Your task to perform on an android device: allow cookies in the chrome app Image 0: 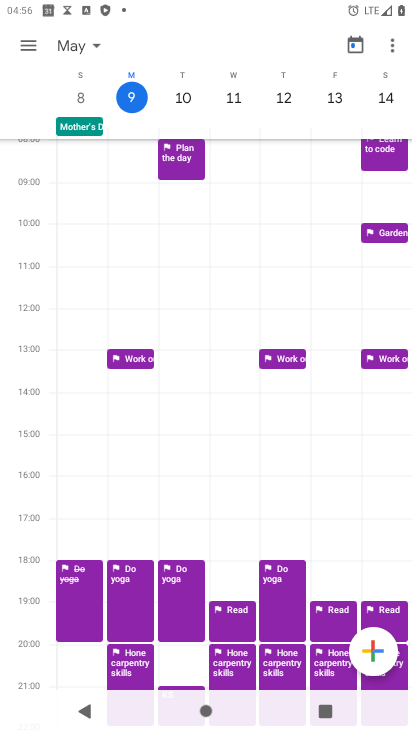
Step 0: press home button
Your task to perform on an android device: allow cookies in the chrome app Image 1: 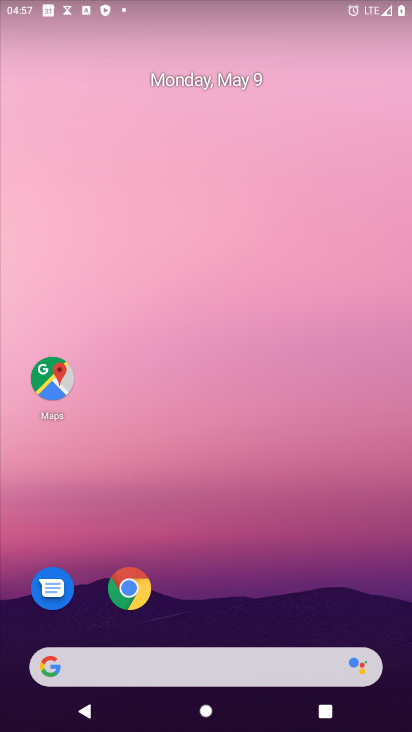
Step 1: drag from (239, 576) to (242, 146)
Your task to perform on an android device: allow cookies in the chrome app Image 2: 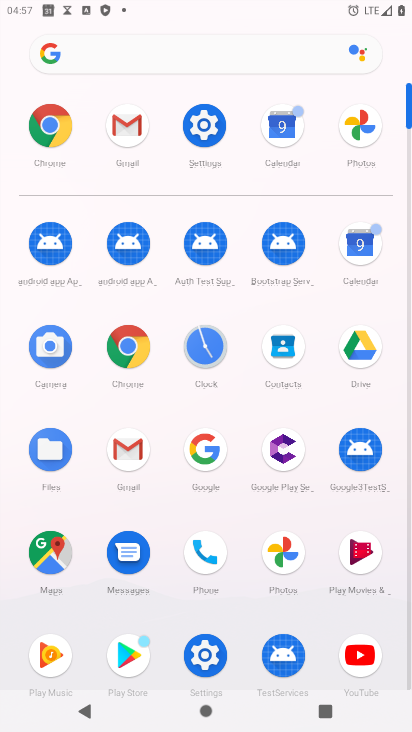
Step 2: click (48, 115)
Your task to perform on an android device: allow cookies in the chrome app Image 3: 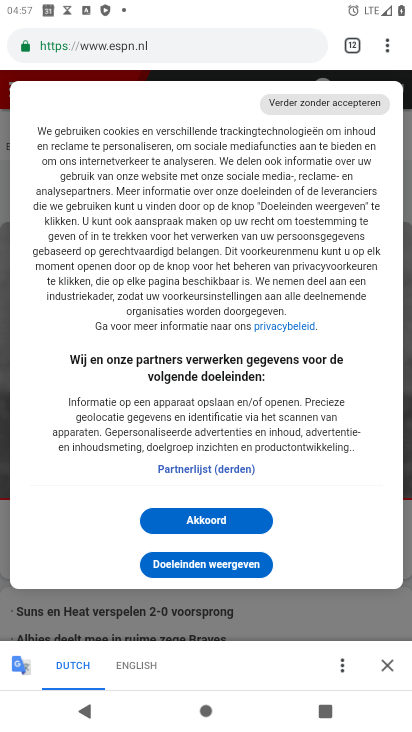
Step 3: press home button
Your task to perform on an android device: allow cookies in the chrome app Image 4: 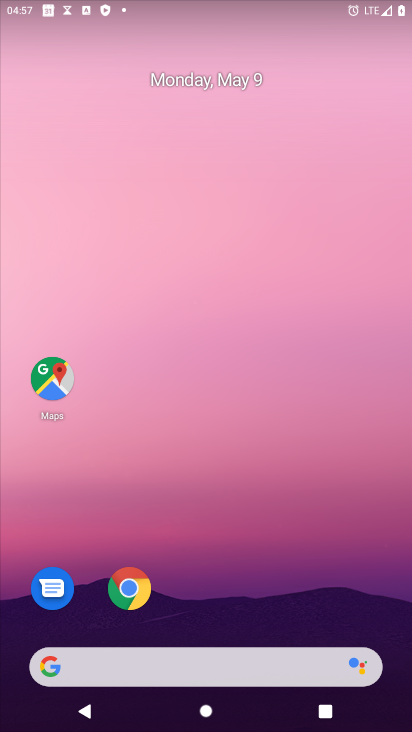
Step 4: click (120, 596)
Your task to perform on an android device: allow cookies in the chrome app Image 5: 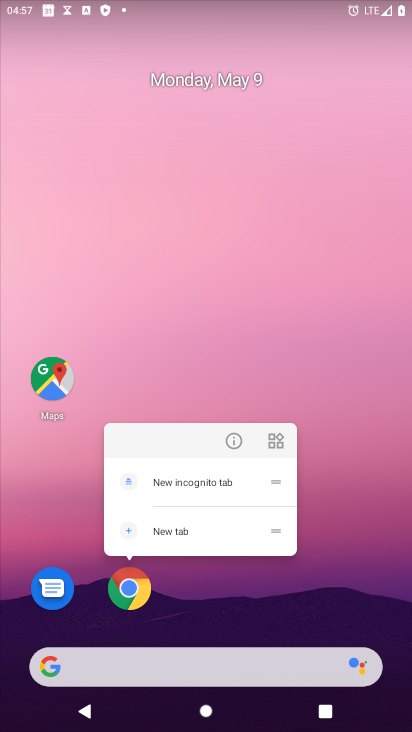
Step 5: click (120, 593)
Your task to perform on an android device: allow cookies in the chrome app Image 6: 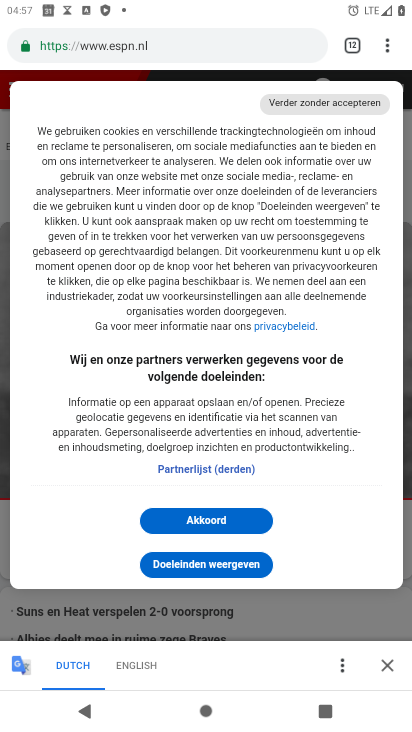
Step 6: click (380, 37)
Your task to perform on an android device: allow cookies in the chrome app Image 7: 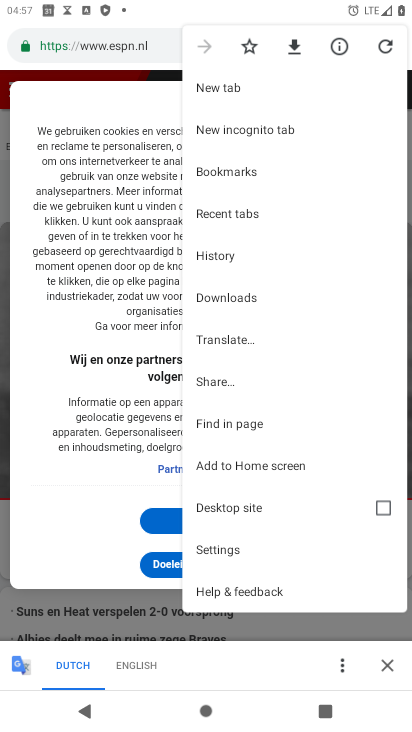
Step 7: click (215, 543)
Your task to perform on an android device: allow cookies in the chrome app Image 8: 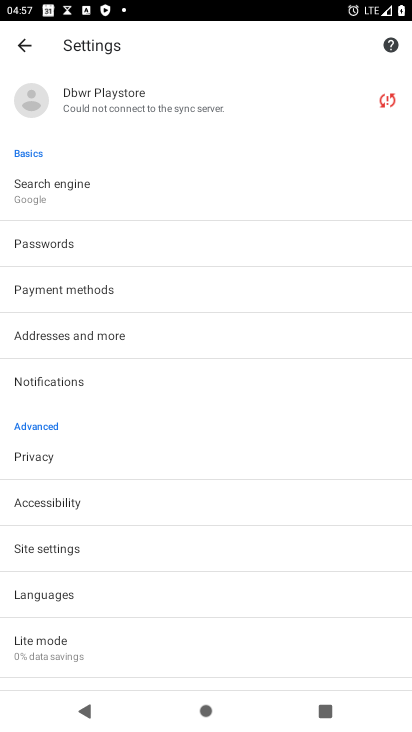
Step 8: click (114, 548)
Your task to perform on an android device: allow cookies in the chrome app Image 9: 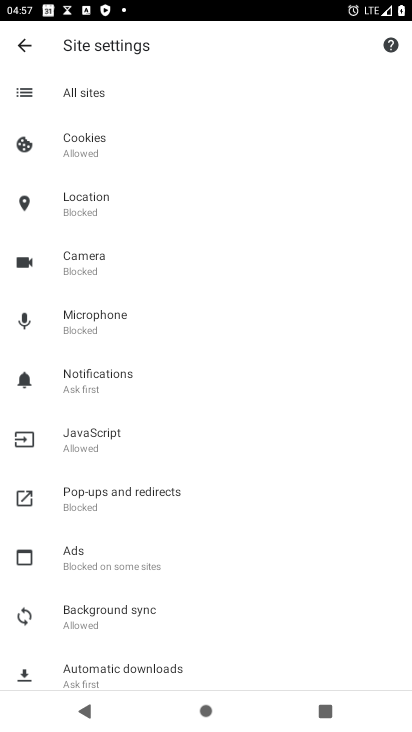
Step 9: click (92, 160)
Your task to perform on an android device: allow cookies in the chrome app Image 10: 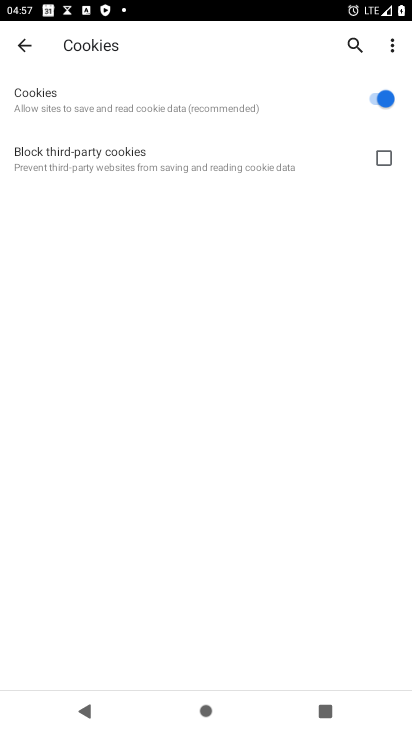
Step 10: task complete